Your task to perform on an android device: choose inbox layout in the gmail app Image 0: 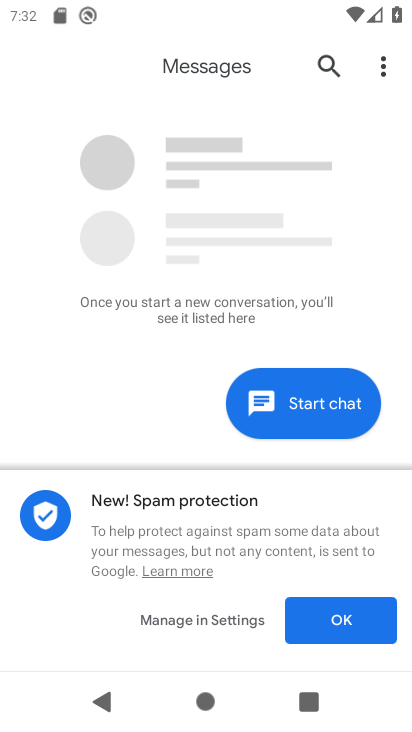
Step 0: press home button
Your task to perform on an android device: choose inbox layout in the gmail app Image 1: 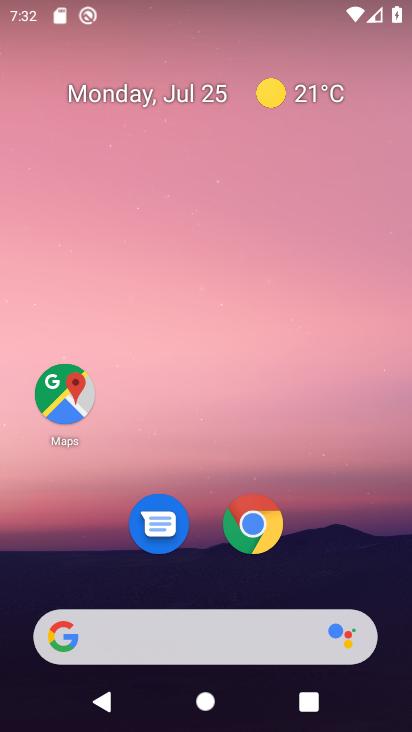
Step 1: drag from (245, 642) to (336, 184)
Your task to perform on an android device: choose inbox layout in the gmail app Image 2: 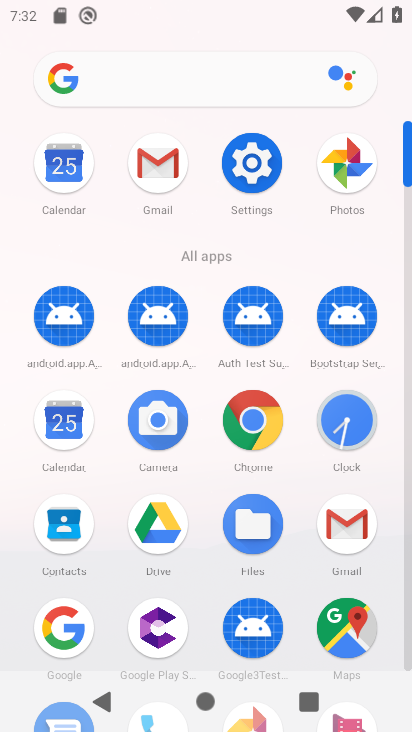
Step 2: click (149, 160)
Your task to perform on an android device: choose inbox layout in the gmail app Image 3: 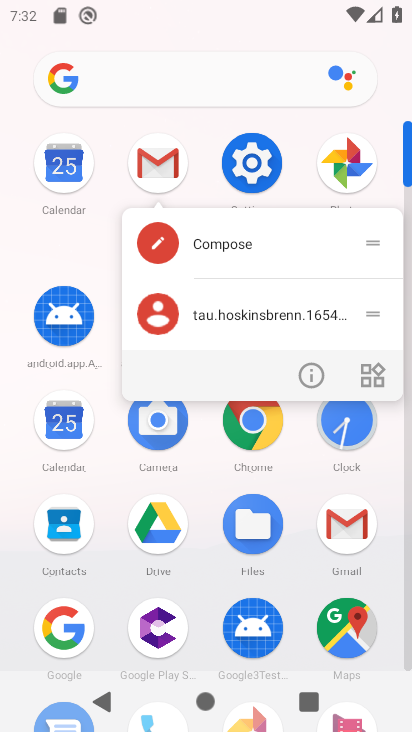
Step 3: click (168, 172)
Your task to perform on an android device: choose inbox layout in the gmail app Image 4: 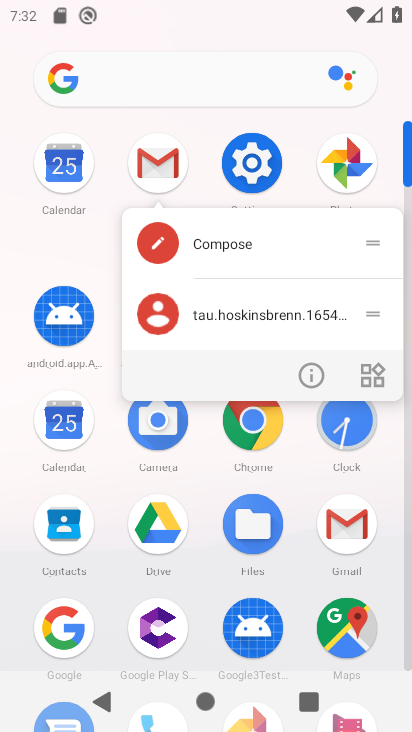
Step 4: click (160, 170)
Your task to perform on an android device: choose inbox layout in the gmail app Image 5: 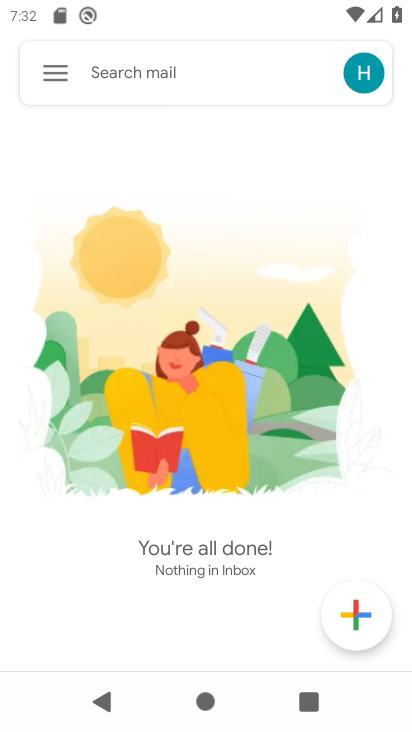
Step 5: click (61, 72)
Your task to perform on an android device: choose inbox layout in the gmail app Image 6: 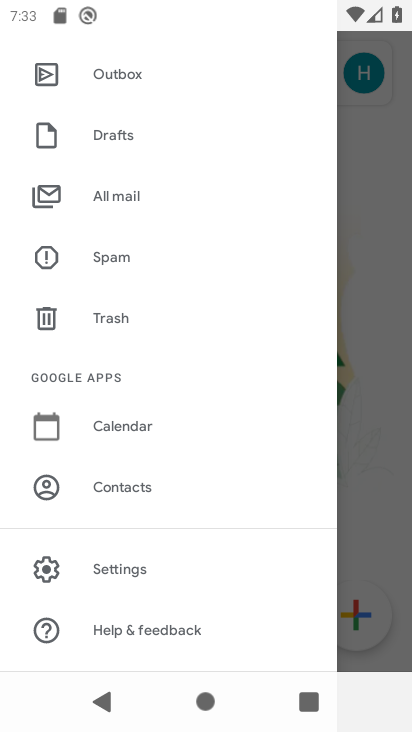
Step 6: click (132, 567)
Your task to perform on an android device: choose inbox layout in the gmail app Image 7: 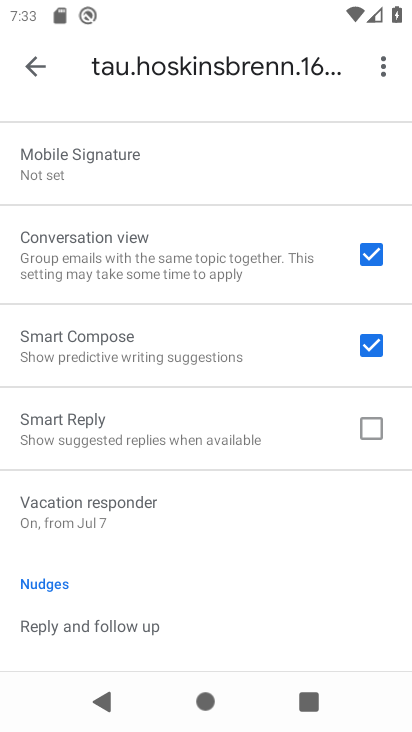
Step 7: drag from (253, 190) to (272, 571)
Your task to perform on an android device: choose inbox layout in the gmail app Image 8: 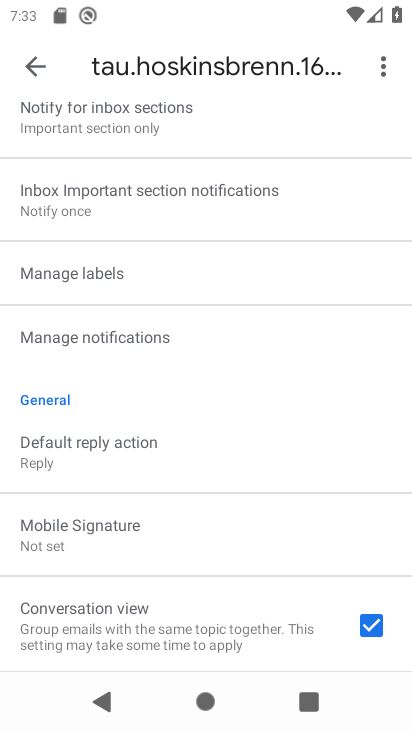
Step 8: drag from (189, 257) to (238, 575)
Your task to perform on an android device: choose inbox layout in the gmail app Image 9: 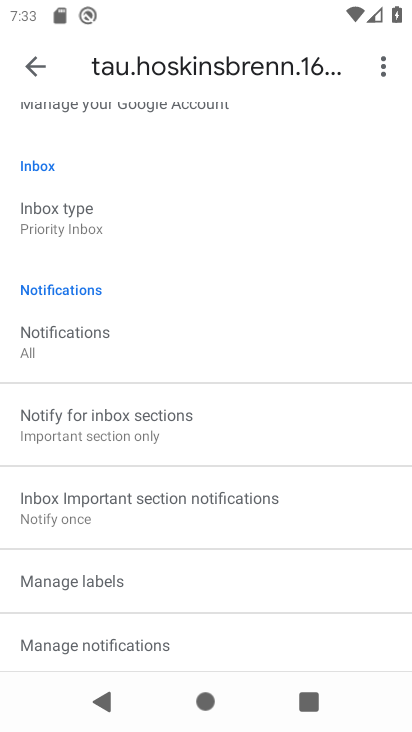
Step 9: drag from (268, 177) to (268, 343)
Your task to perform on an android device: choose inbox layout in the gmail app Image 10: 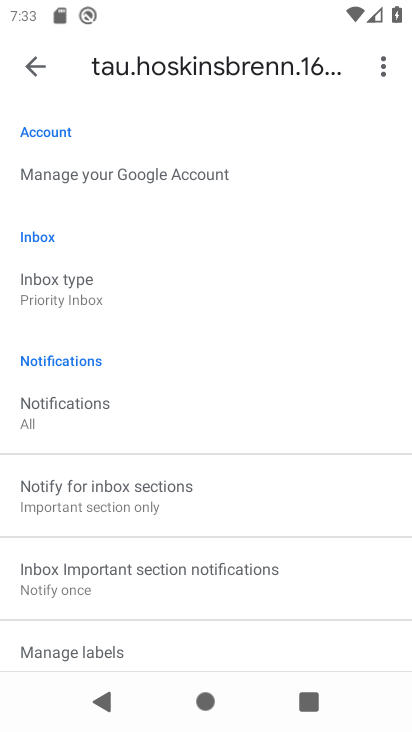
Step 10: click (46, 293)
Your task to perform on an android device: choose inbox layout in the gmail app Image 11: 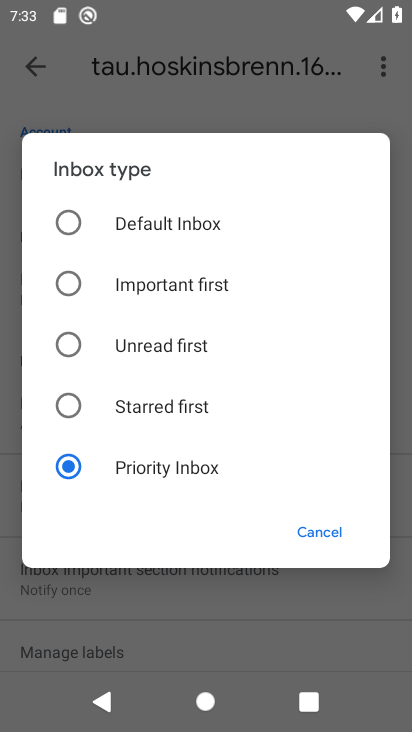
Step 11: click (63, 210)
Your task to perform on an android device: choose inbox layout in the gmail app Image 12: 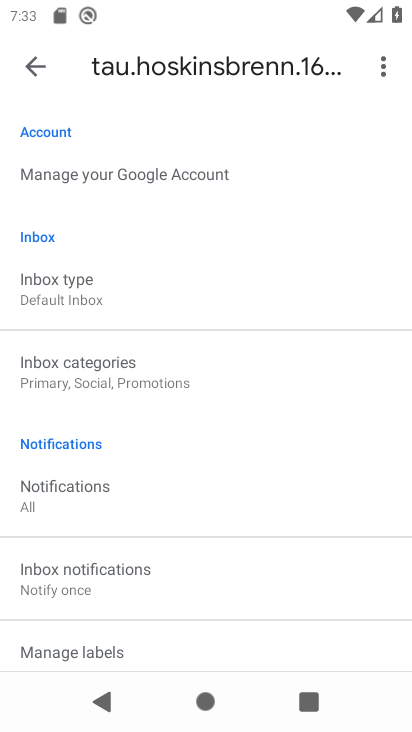
Step 12: task complete